Your task to perform on an android device: stop showing notifications on the lock screen Image 0: 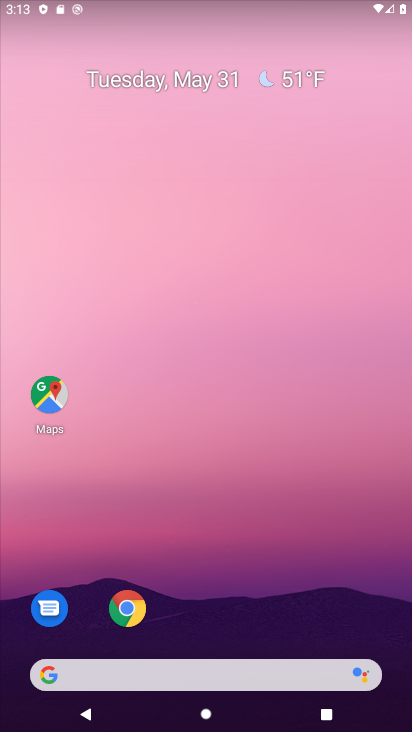
Step 0: drag from (331, 567) to (352, 281)
Your task to perform on an android device: stop showing notifications on the lock screen Image 1: 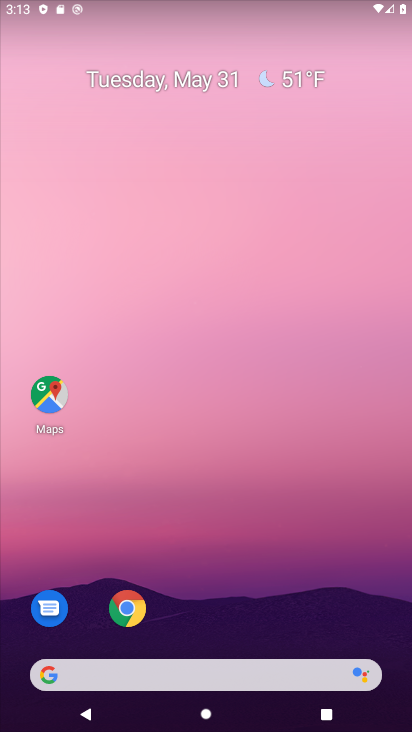
Step 1: drag from (314, 614) to (320, 325)
Your task to perform on an android device: stop showing notifications on the lock screen Image 2: 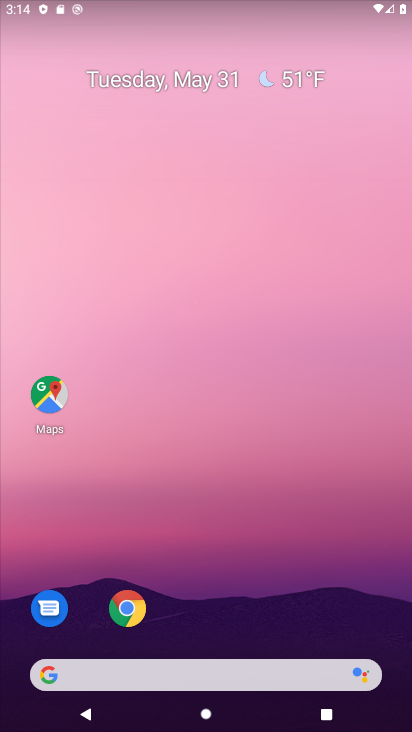
Step 2: drag from (271, 627) to (311, 168)
Your task to perform on an android device: stop showing notifications on the lock screen Image 3: 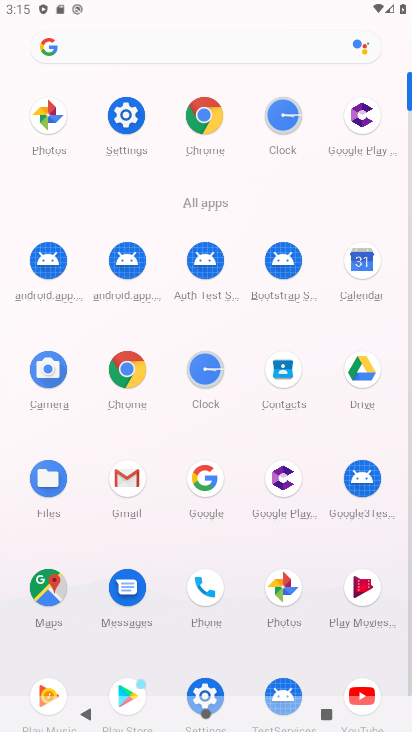
Step 3: click (410, 660)
Your task to perform on an android device: stop showing notifications on the lock screen Image 4: 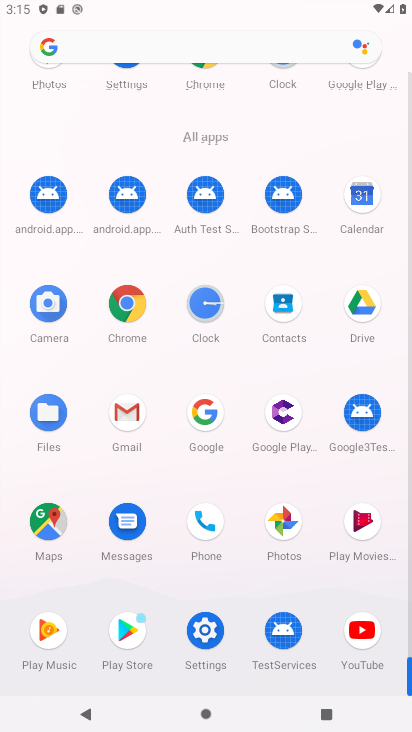
Step 4: click (200, 617)
Your task to perform on an android device: stop showing notifications on the lock screen Image 5: 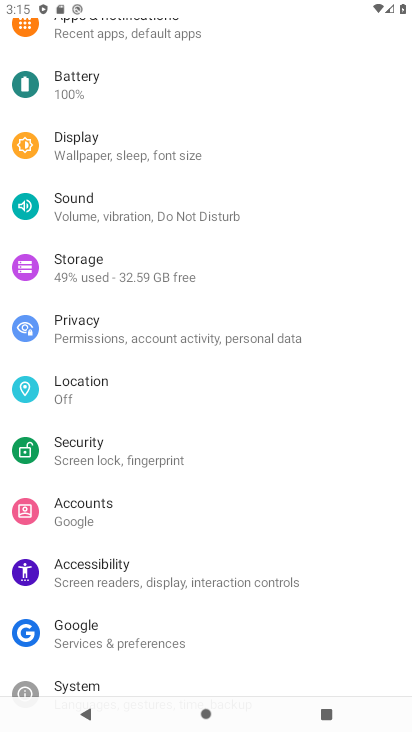
Step 5: drag from (162, 110) to (156, 306)
Your task to perform on an android device: stop showing notifications on the lock screen Image 6: 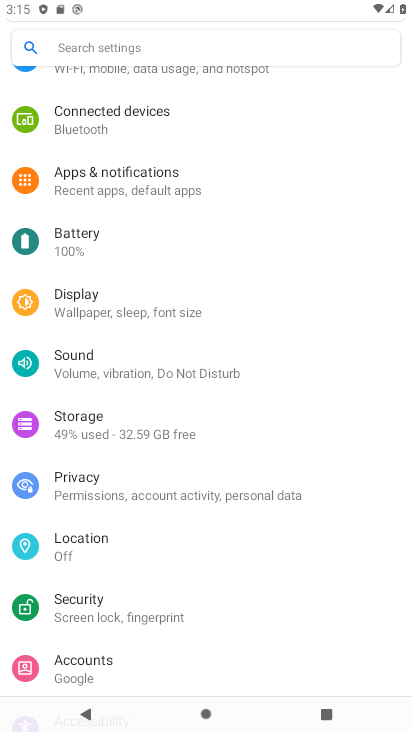
Step 6: click (127, 170)
Your task to perform on an android device: stop showing notifications on the lock screen Image 7: 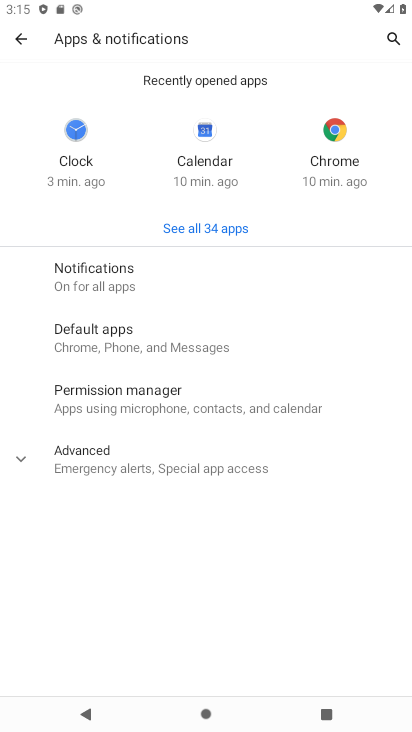
Step 7: click (129, 173)
Your task to perform on an android device: stop showing notifications on the lock screen Image 8: 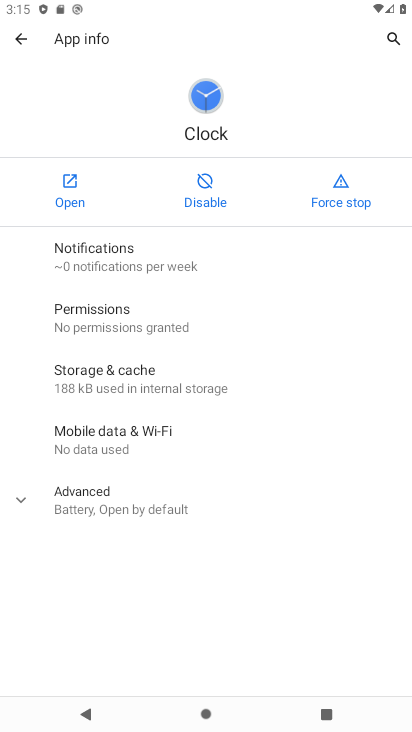
Step 8: click (15, 46)
Your task to perform on an android device: stop showing notifications on the lock screen Image 9: 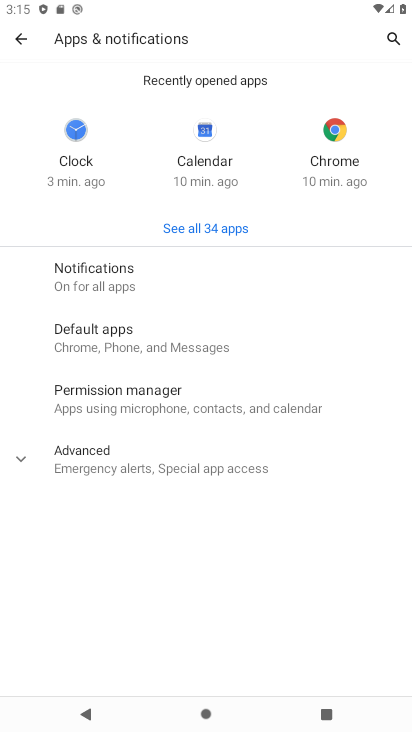
Step 9: click (112, 452)
Your task to perform on an android device: stop showing notifications on the lock screen Image 10: 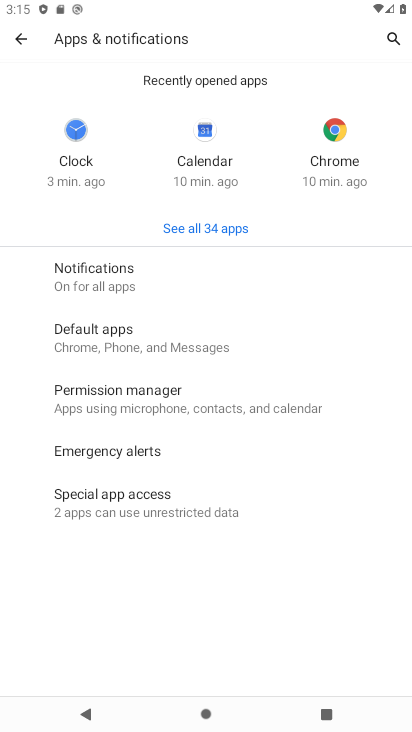
Step 10: click (127, 285)
Your task to perform on an android device: stop showing notifications on the lock screen Image 11: 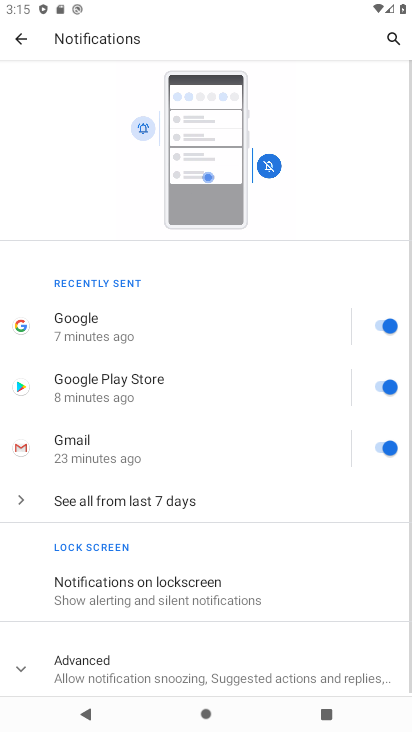
Step 11: click (113, 604)
Your task to perform on an android device: stop showing notifications on the lock screen Image 12: 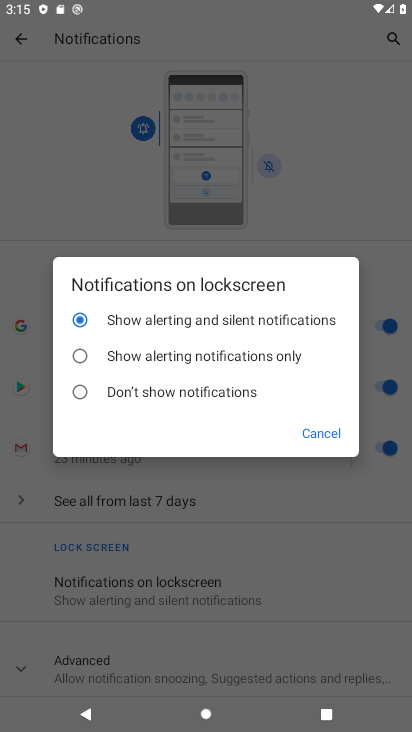
Step 12: click (199, 398)
Your task to perform on an android device: stop showing notifications on the lock screen Image 13: 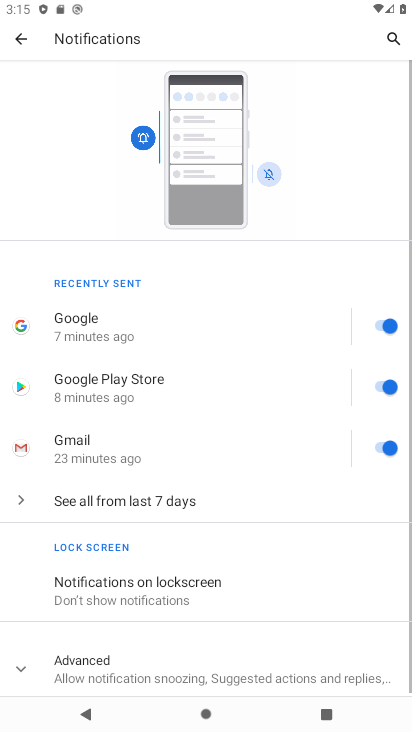
Step 13: task complete